Your task to perform on an android device: Is it going to rain today? Image 0: 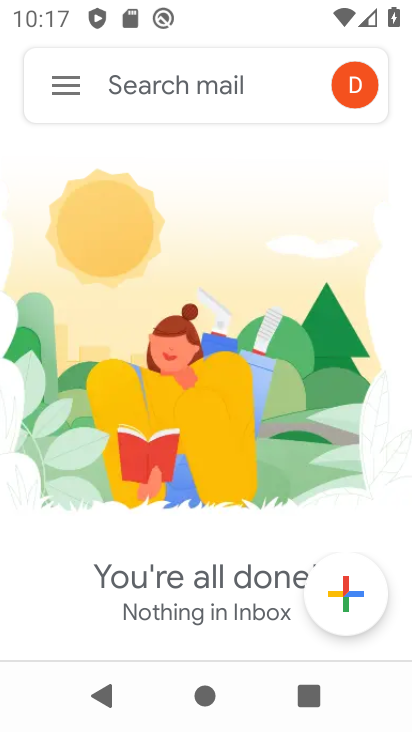
Step 0: press home button
Your task to perform on an android device: Is it going to rain today? Image 1: 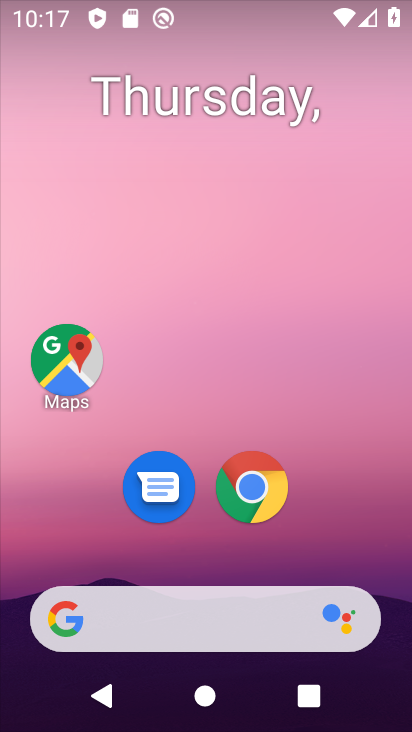
Step 1: click (269, 496)
Your task to perform on an android device: Is it going to rain today? Image 2: 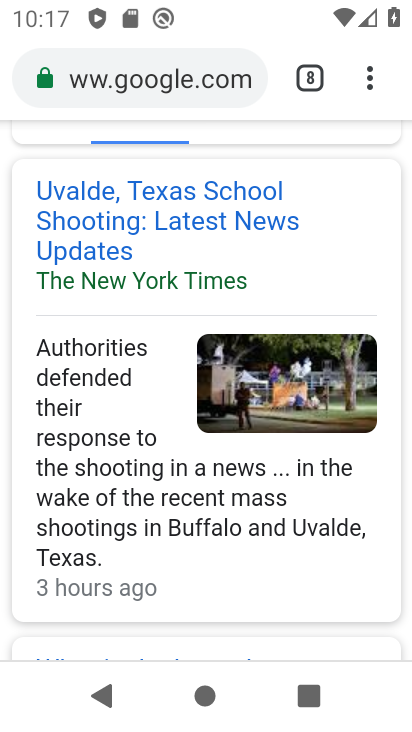
Step 2: click (306, 84)
Your task to perform on an android device: Is it going to rain today? Image 3: 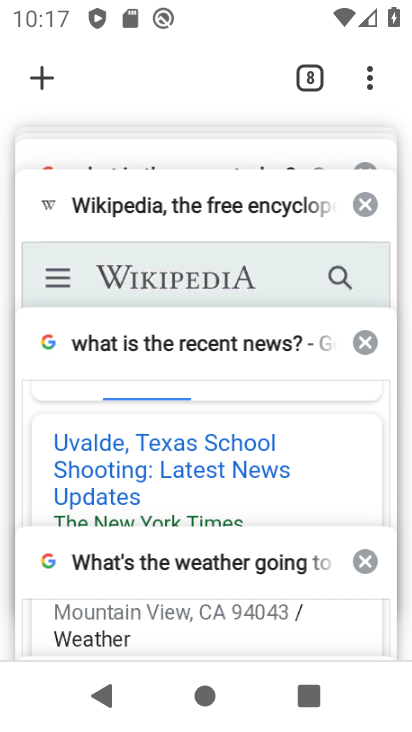
Step 3: click (43, 86)
Your task to perform on an android device: Is it going to rain today? Image 4: 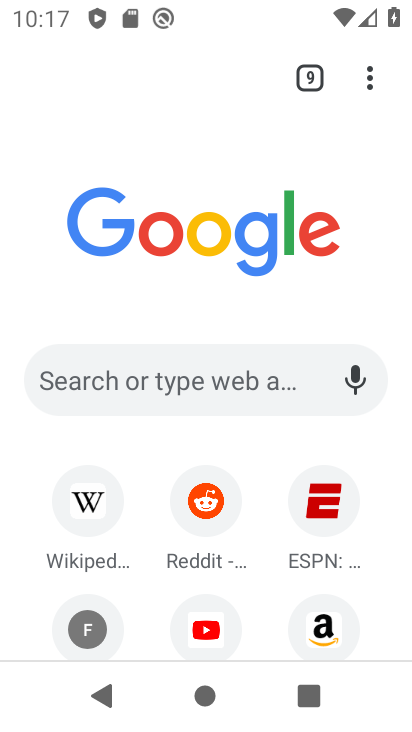
Step 4: click (100, 379)
Your task to perform on an android device: Is it going to rain today? Image 5: 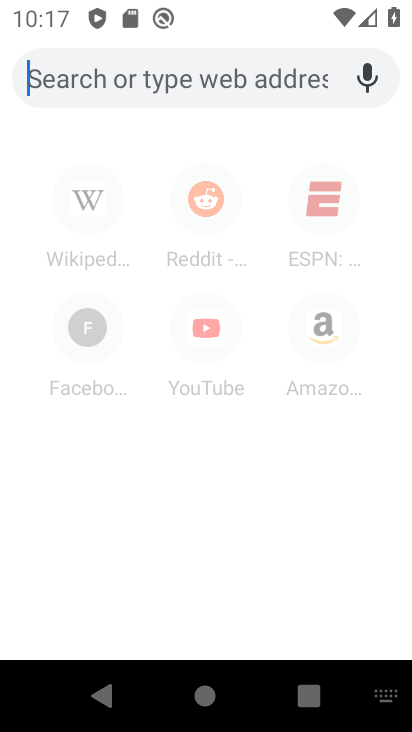
Step 5: type "is it going to rain today?"
Your task to perform on an android device: Is it going to rain today? Image 6: 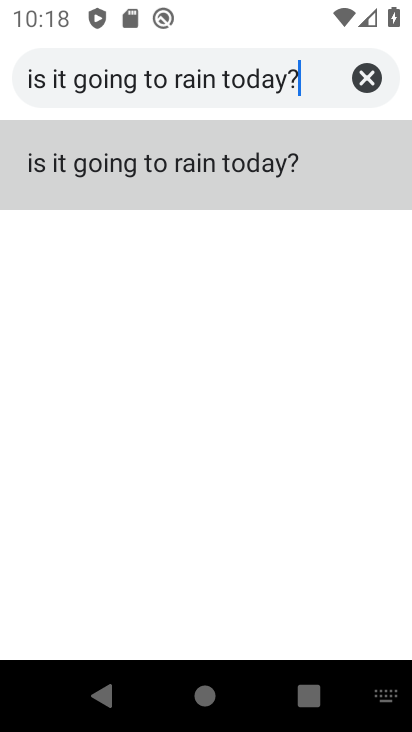
Step 6: click (150, 158)
Your task to perform on an android device: Is it going to rain today? Image 7: 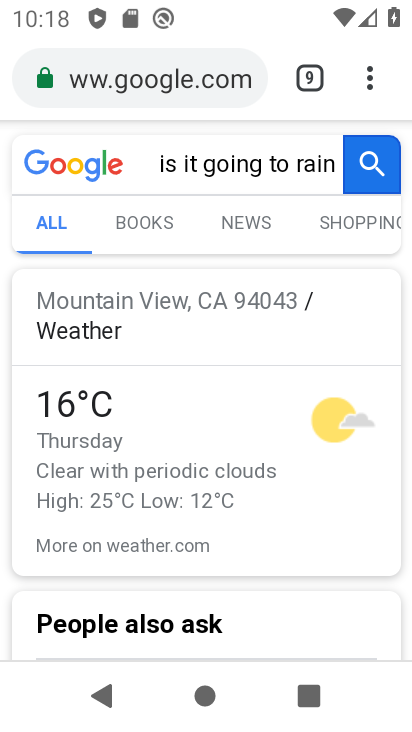
Step 7: task complete